Your task to perform on an android device: check storage Image 0: 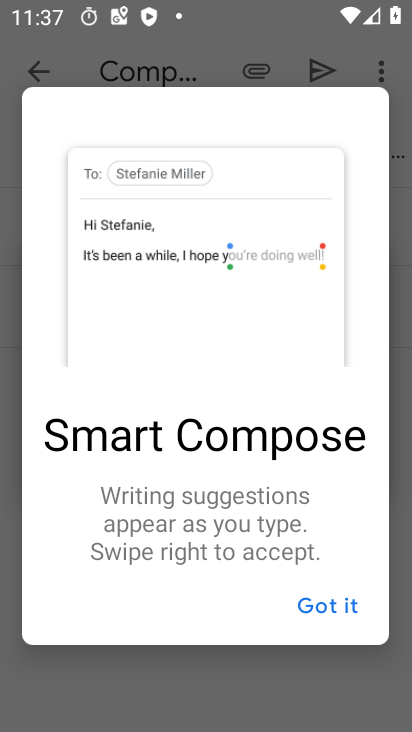
Step 0: press home button
Your task to perform on an android device: check storage Image 1: 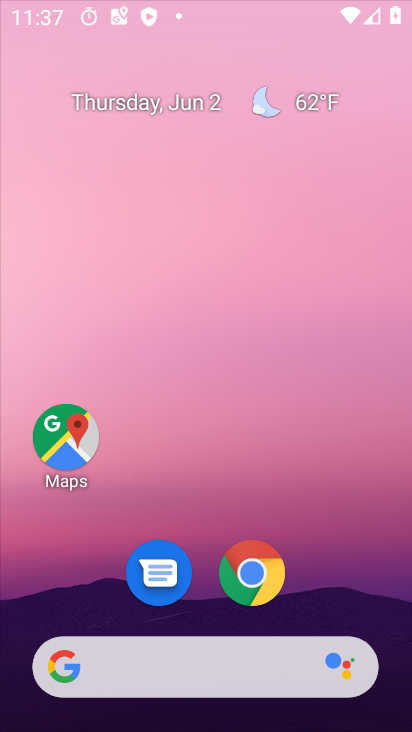
Step 1: drag from (209, 665) to (257, 26)
Your task to perform on an android device: check storage Image 2: 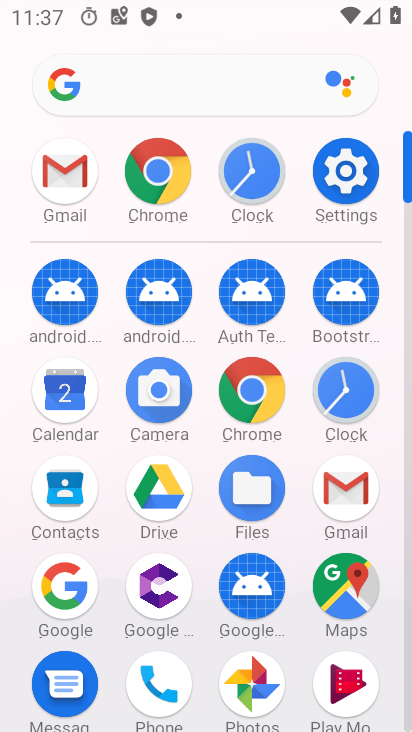
Step 2: click (348, 146)
Your task to perform on an android device: check storage Image 3: 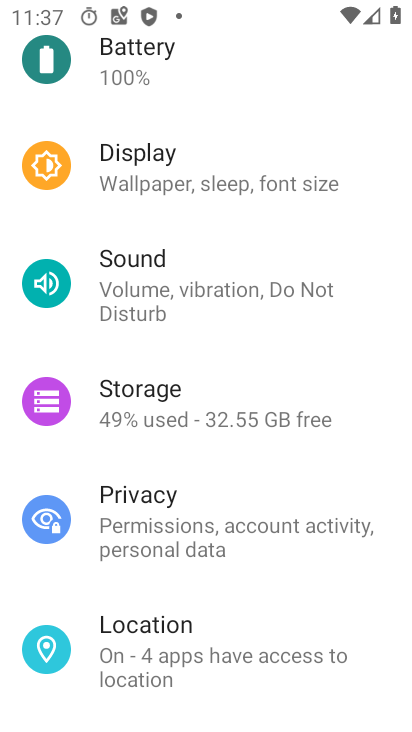
Step 3: click (192, 405)
Your task to perform on an android device: check storage Image 4: 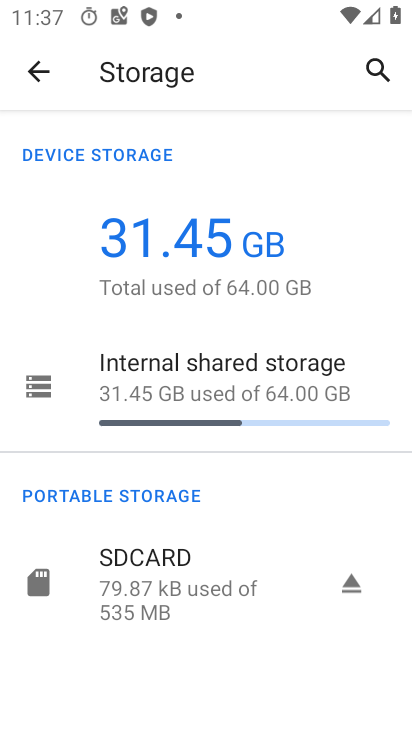
Step 4: task complete